Your task to perform on an android device: Open the web browser Image 0: 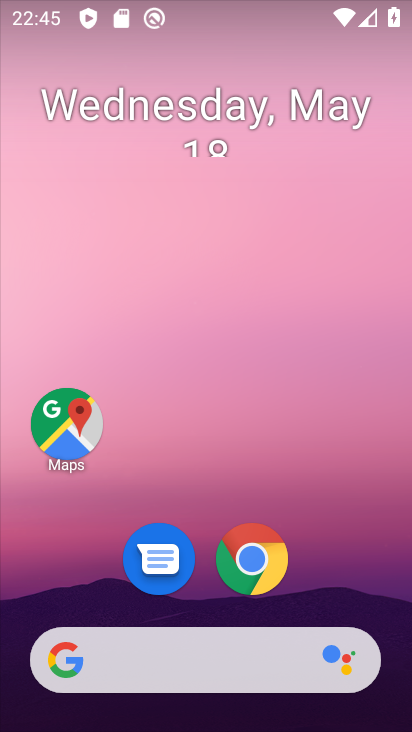
Step 0: click (254, 559)
Your task to perform on an android device: Open the web browser Image 1: 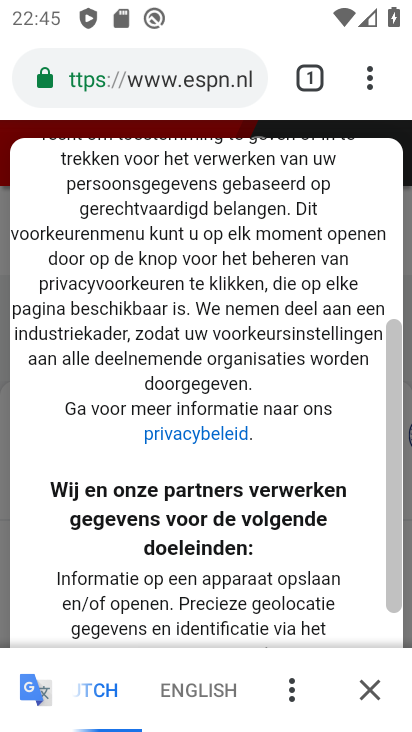
Step 1: task complete